Your task to perform on an android device: Go to Maps Image 0: 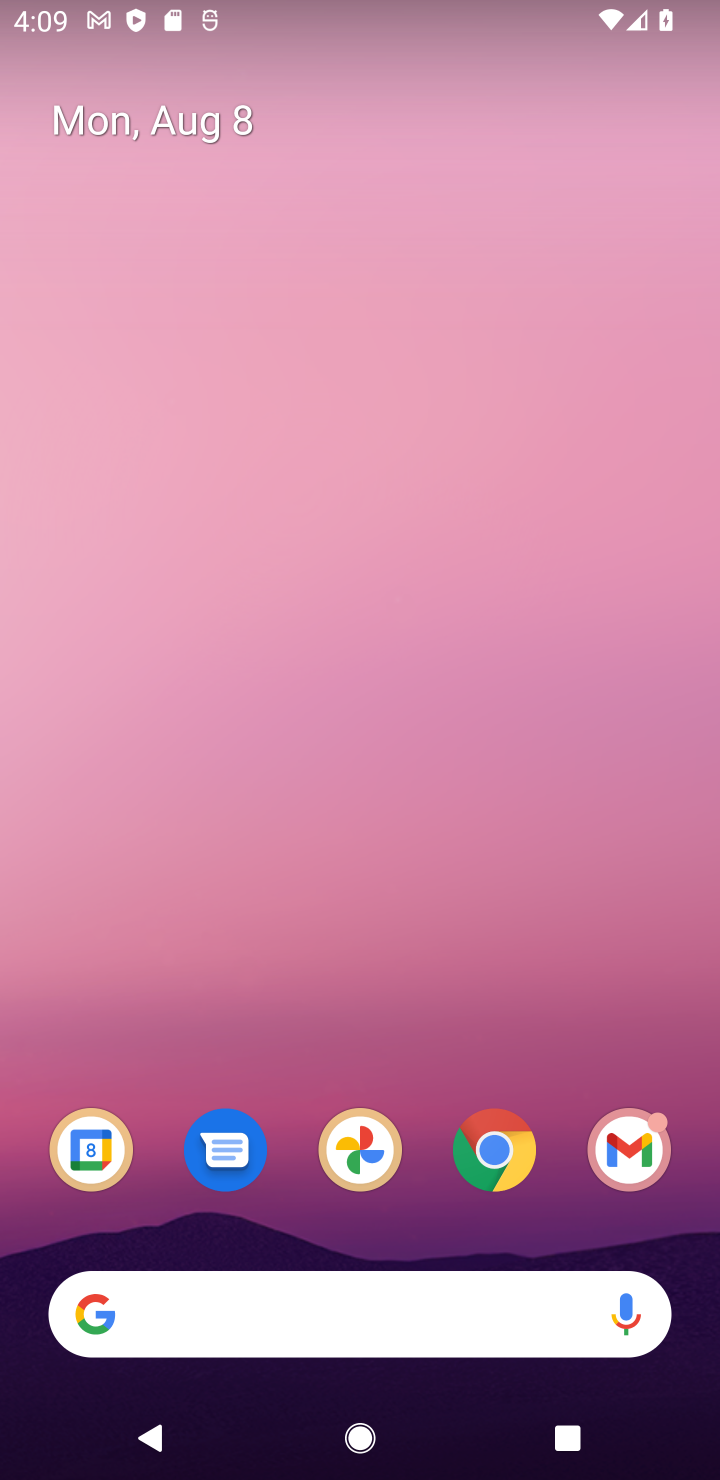
Step 0: drag from (448, 1233) to (378, 195)
Your task to perform on an android device: Go to Maps Image 1: 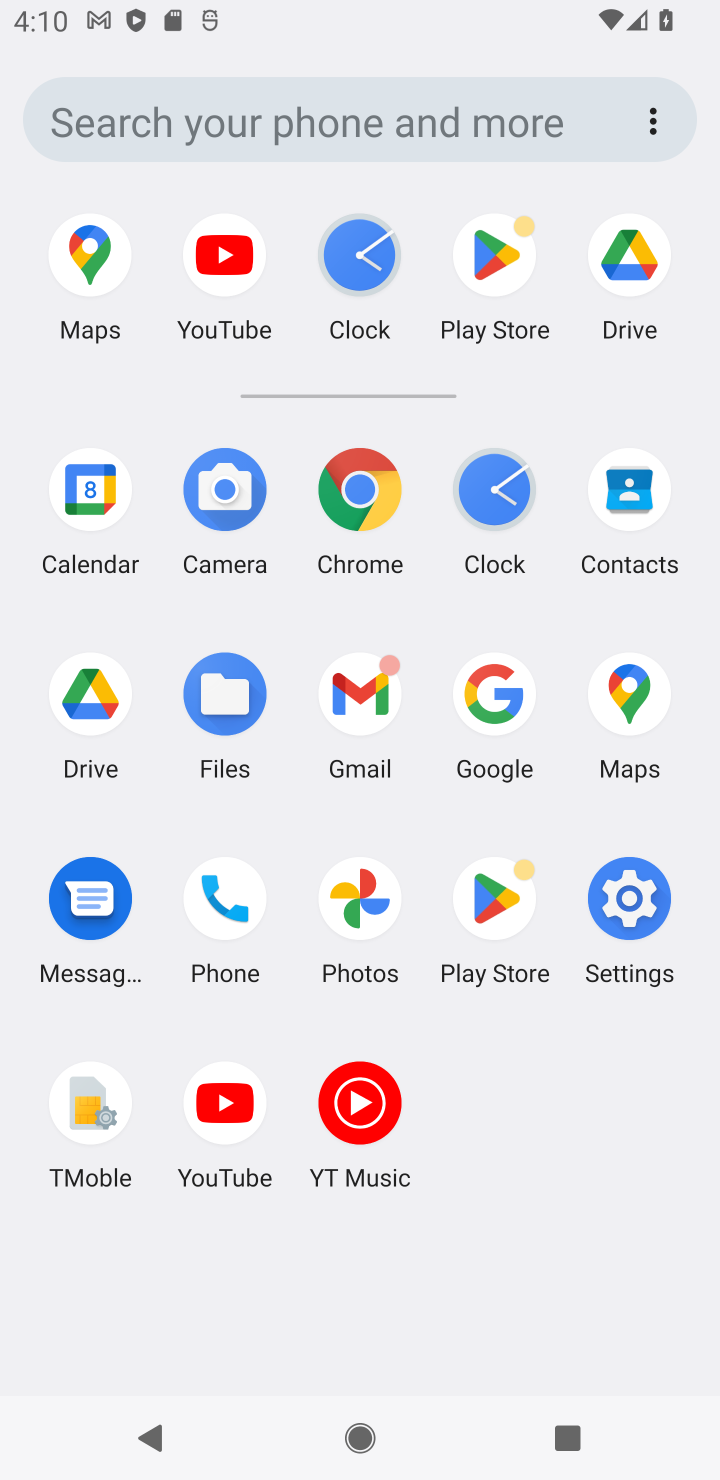
Step 1: click (113, 247)
Your task to perform on an android device: Go to Maps Image 2: 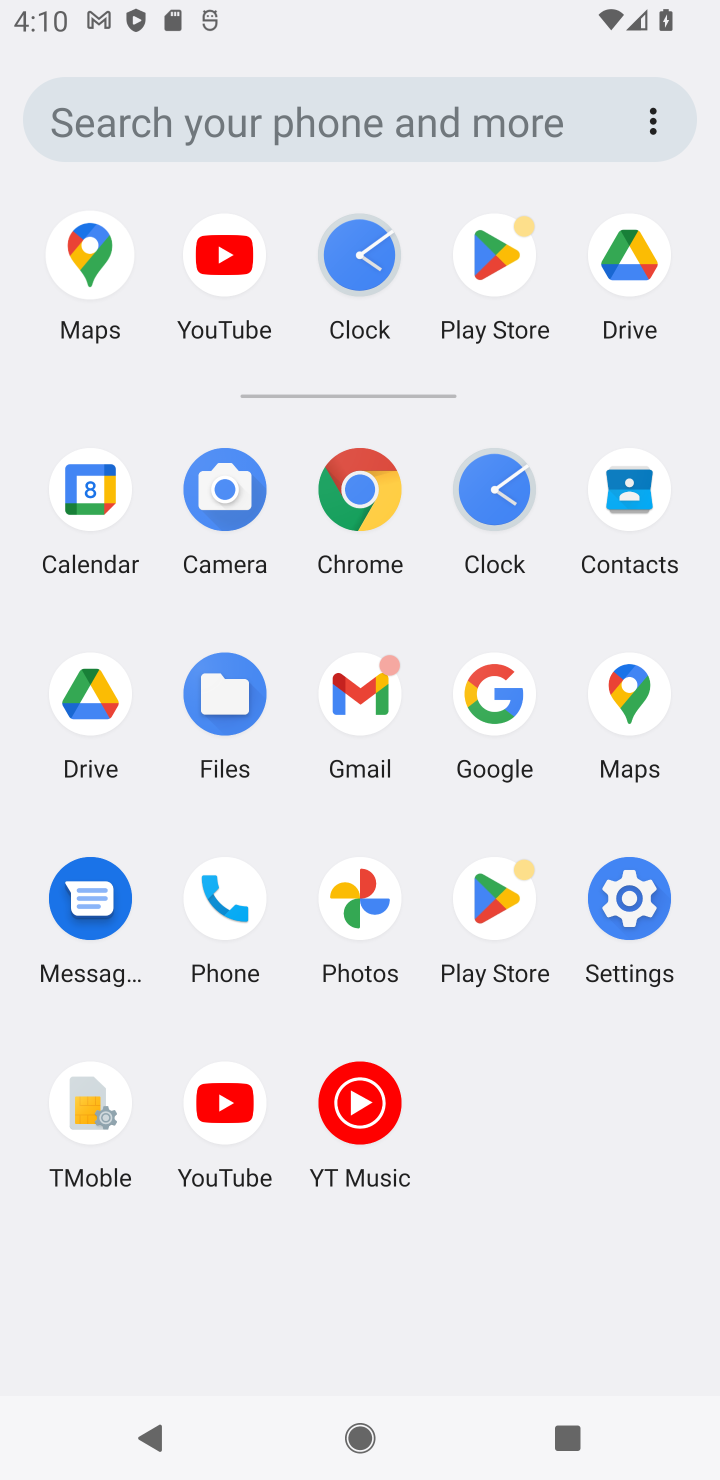
Step 2: task complete